Your task to perform on an android device: Search for desk lamps on article.com Image 0: 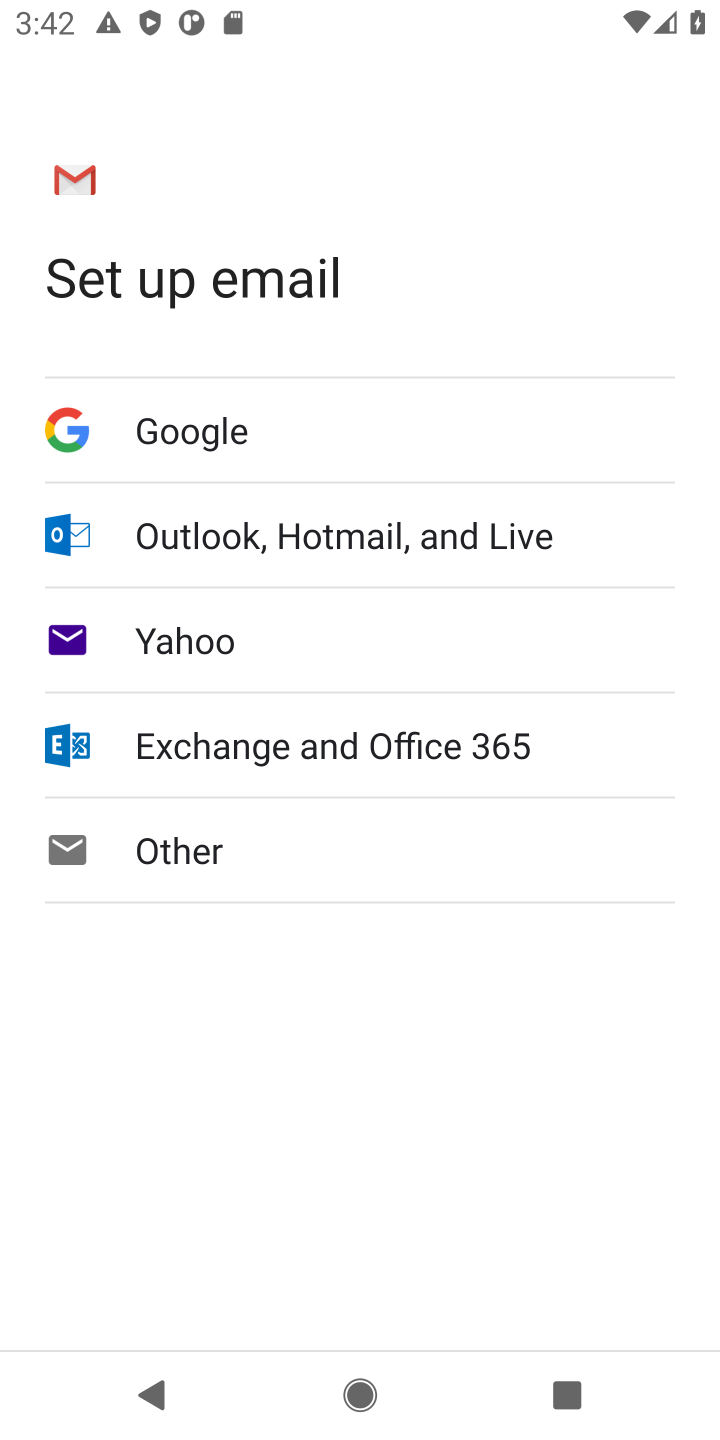
Step 0: press home button
Your task to perform on an android device: Search for desk lamps on article.com Image 1: 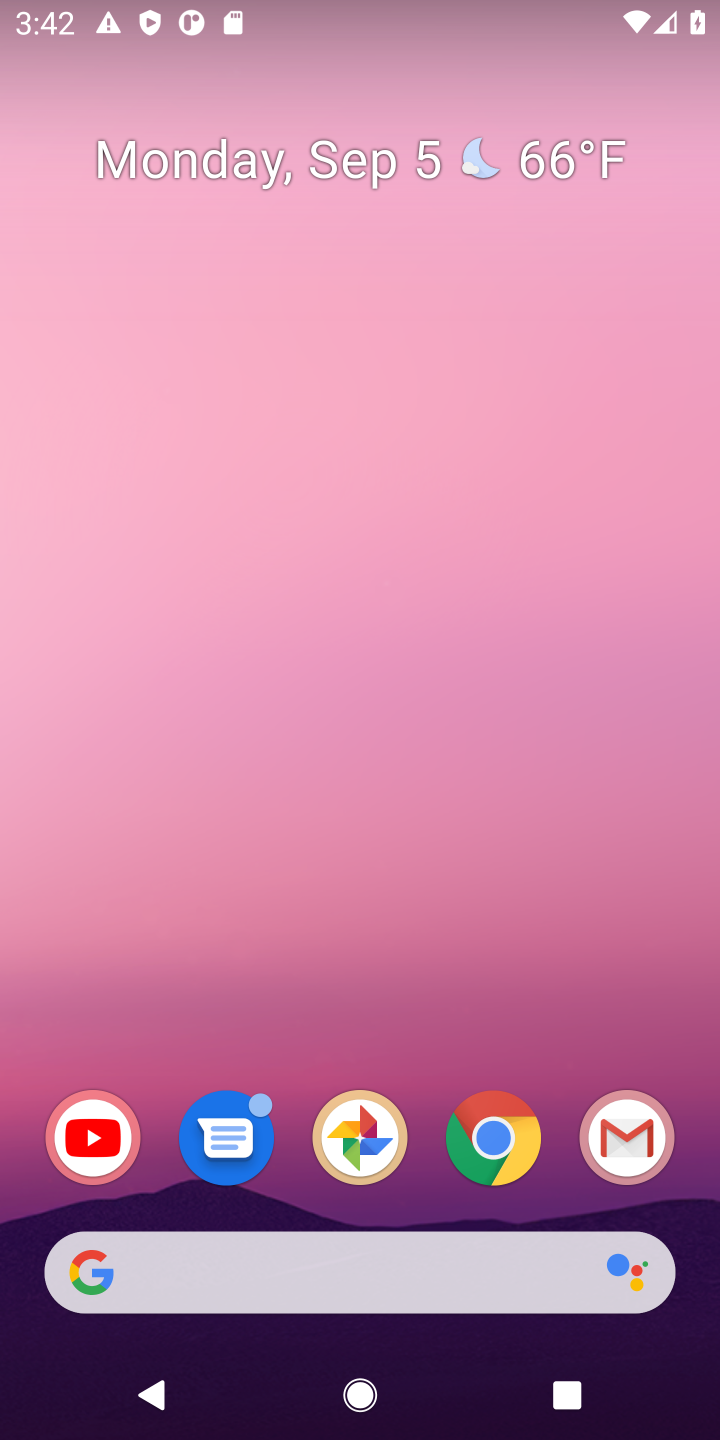
Step 1: click (484, 1153)
Your task to perform on an android device: Search for desk lamps on article.com Image 2: 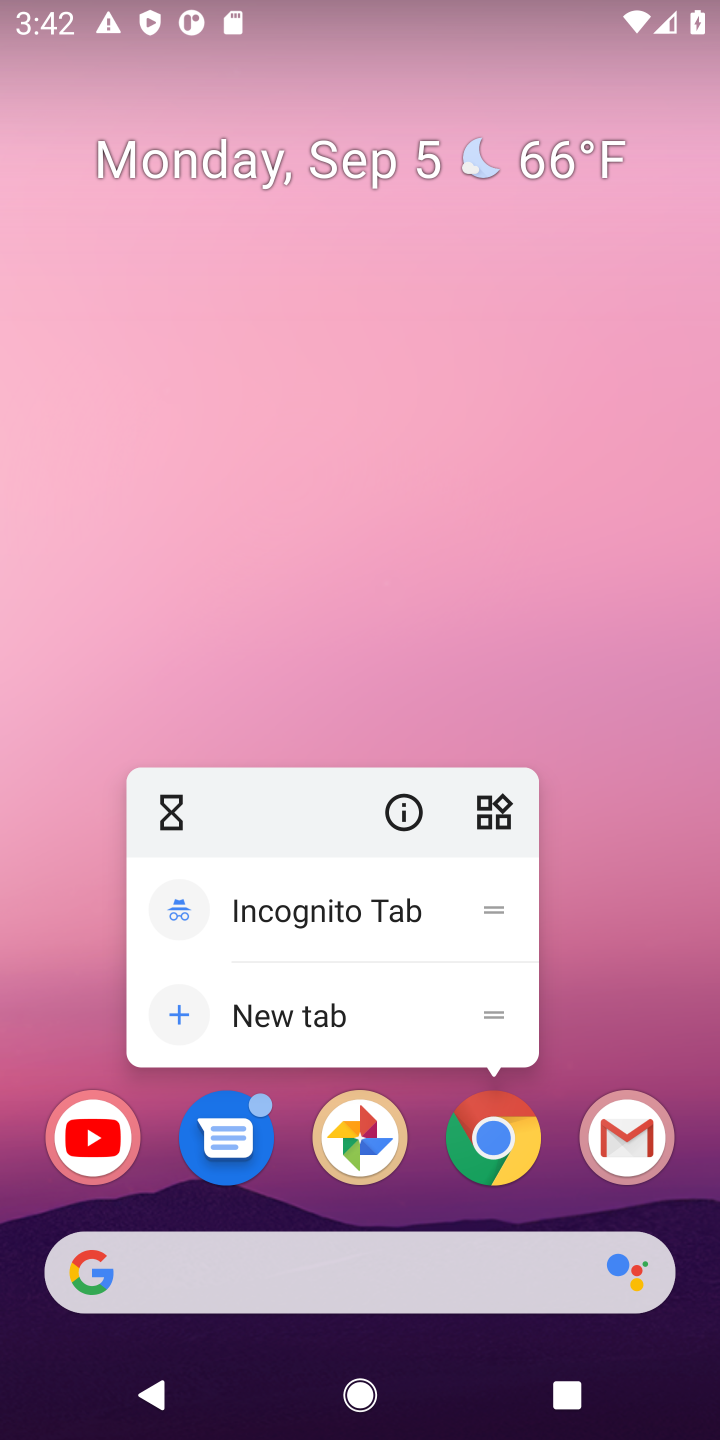
Step 2: click (526, 1141)
Your task to perform on an android device: Search for desk lamps on article.com Image 3: 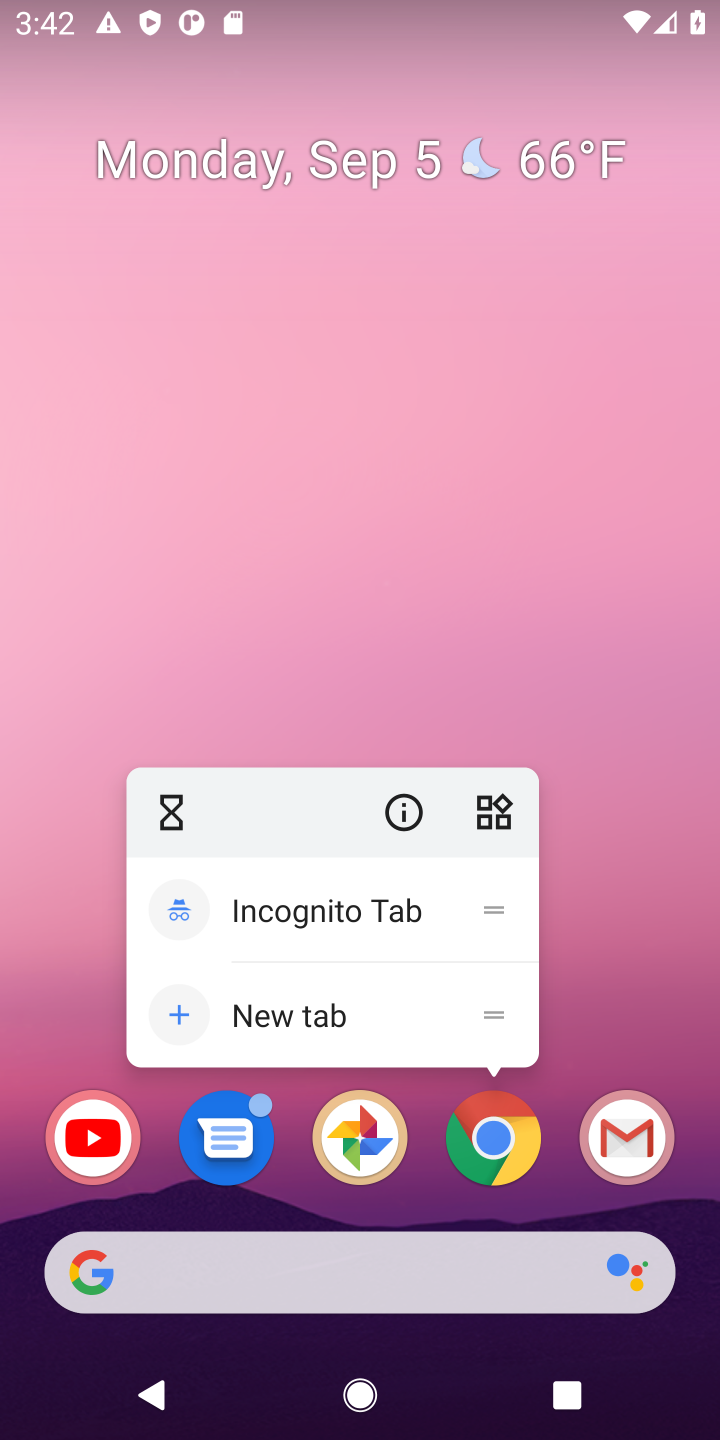
Step 3: click (526, 1141)
Your task to perform on an android device: Search for desk lamps on article.com Image 4: 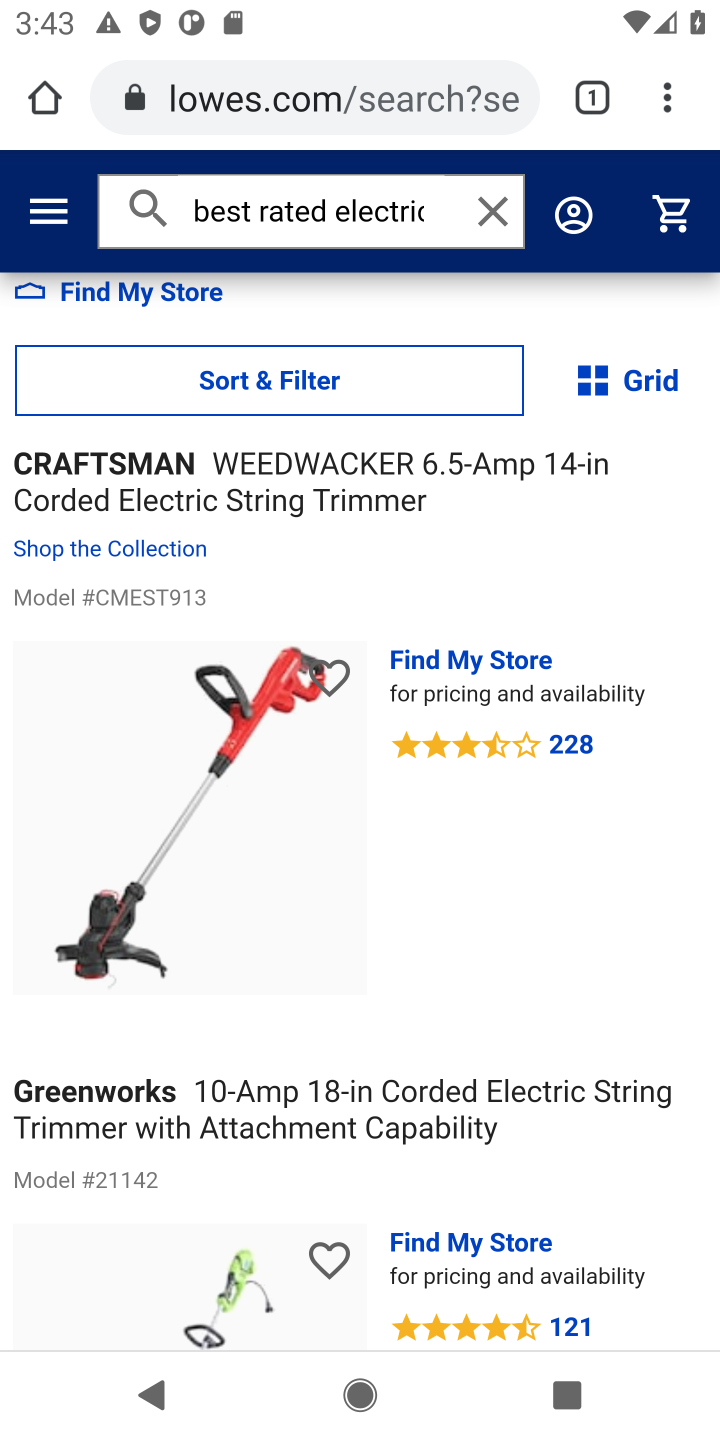
Step 4: click (366, 108)
Your task to perform on an android device: Search for desk lamps on article.com Image 5: 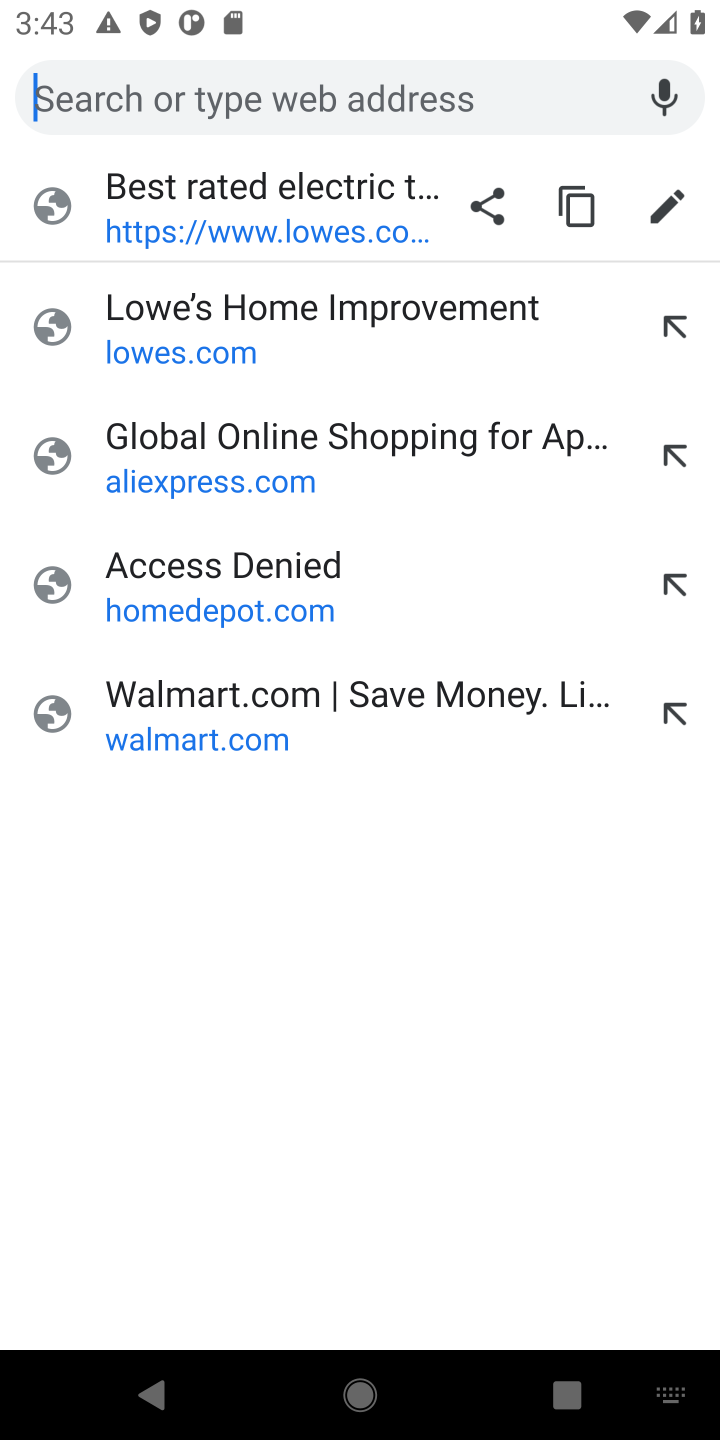
Step 5: type "article.com"
Your task to perform on an android device: Search for desk lamps on article.com Image 6: 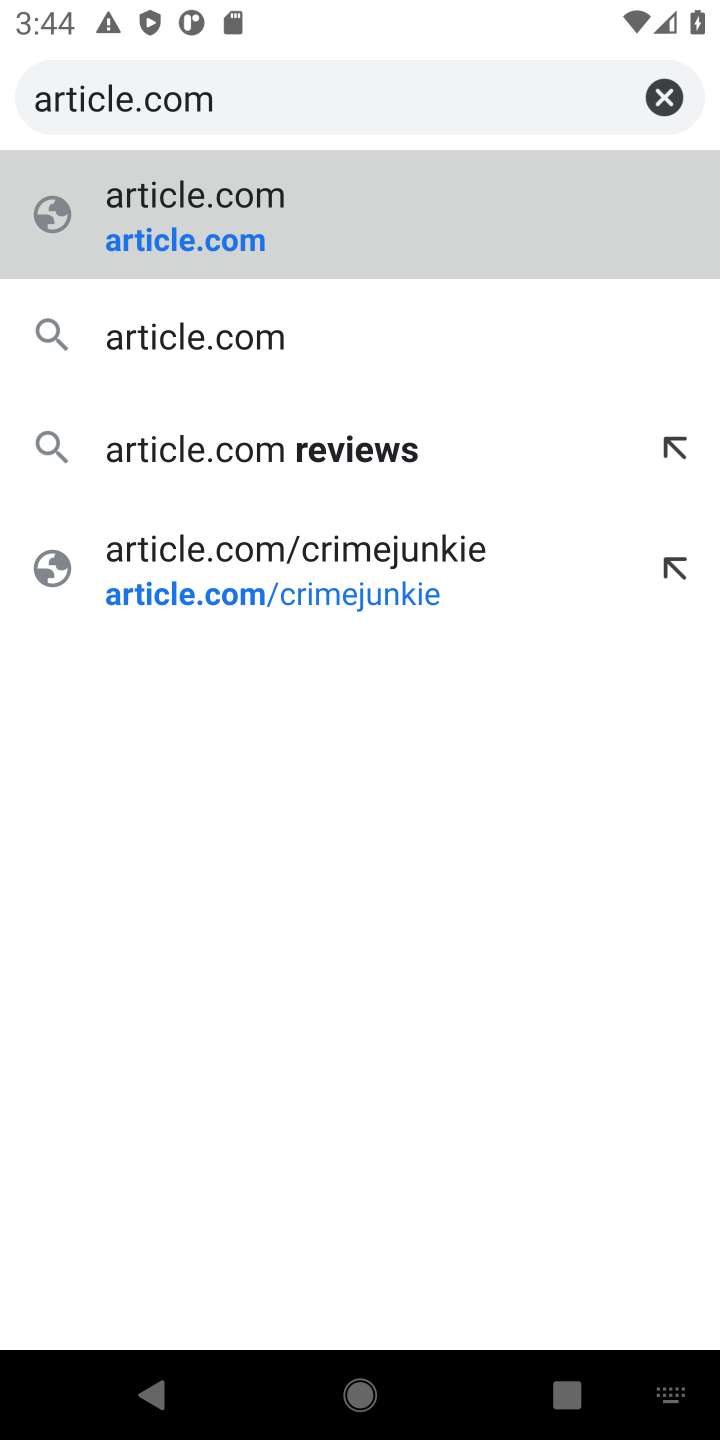
Step 6: click (281, 240)
Your task to perform on an android device: Search for desk lamps on article.com Image 7: 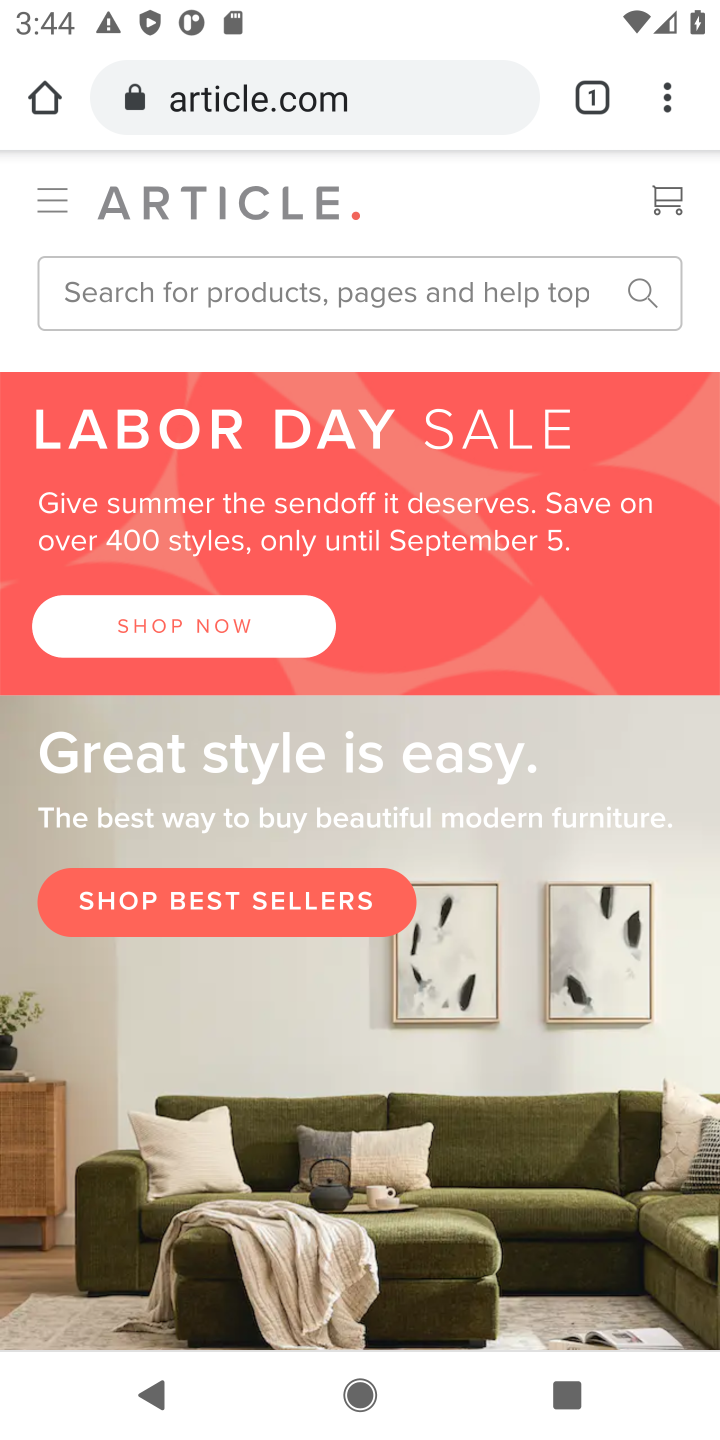
Step 7: click (361, 288)
Your task to perform on an android device: Search for desk lamps on article.com Image 8: 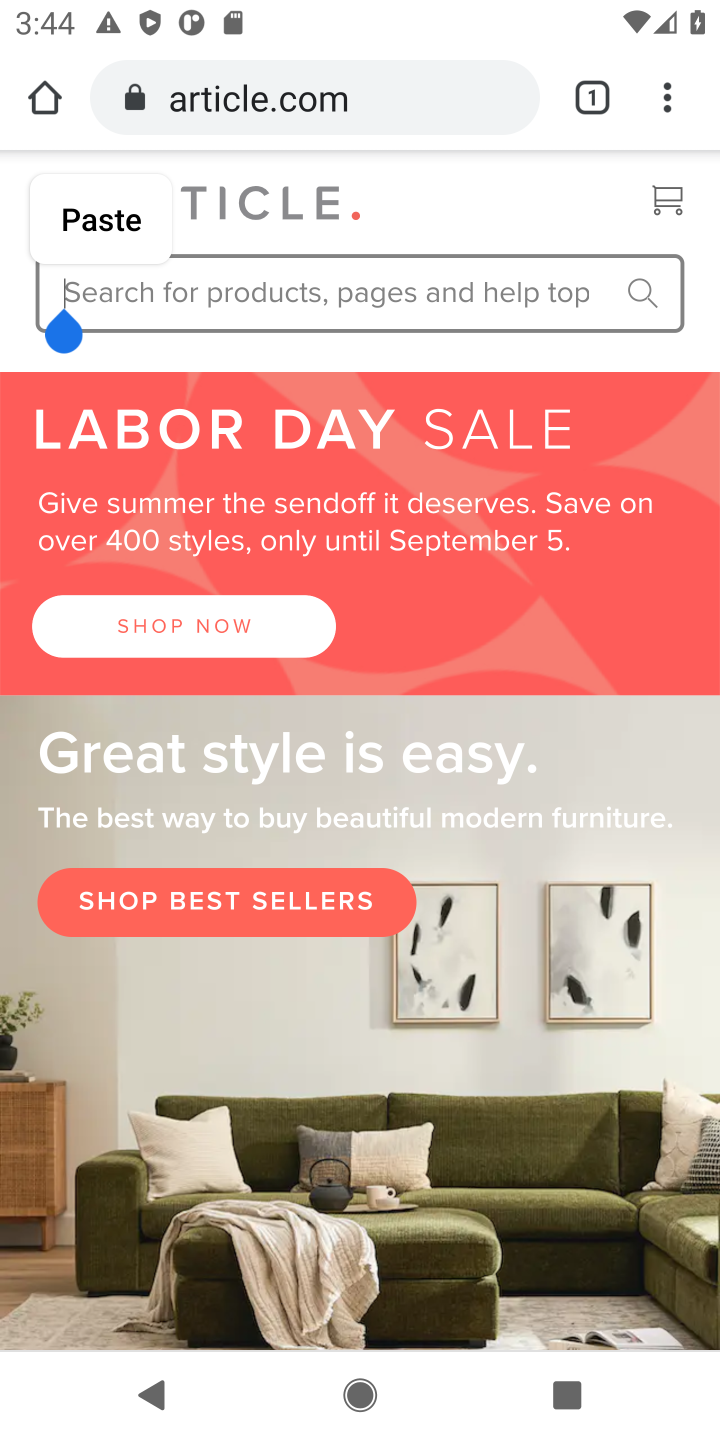
Step 8: type "desk lamps"
Your task to perform on an android device: Search for desk lamps on article.com Image 9: 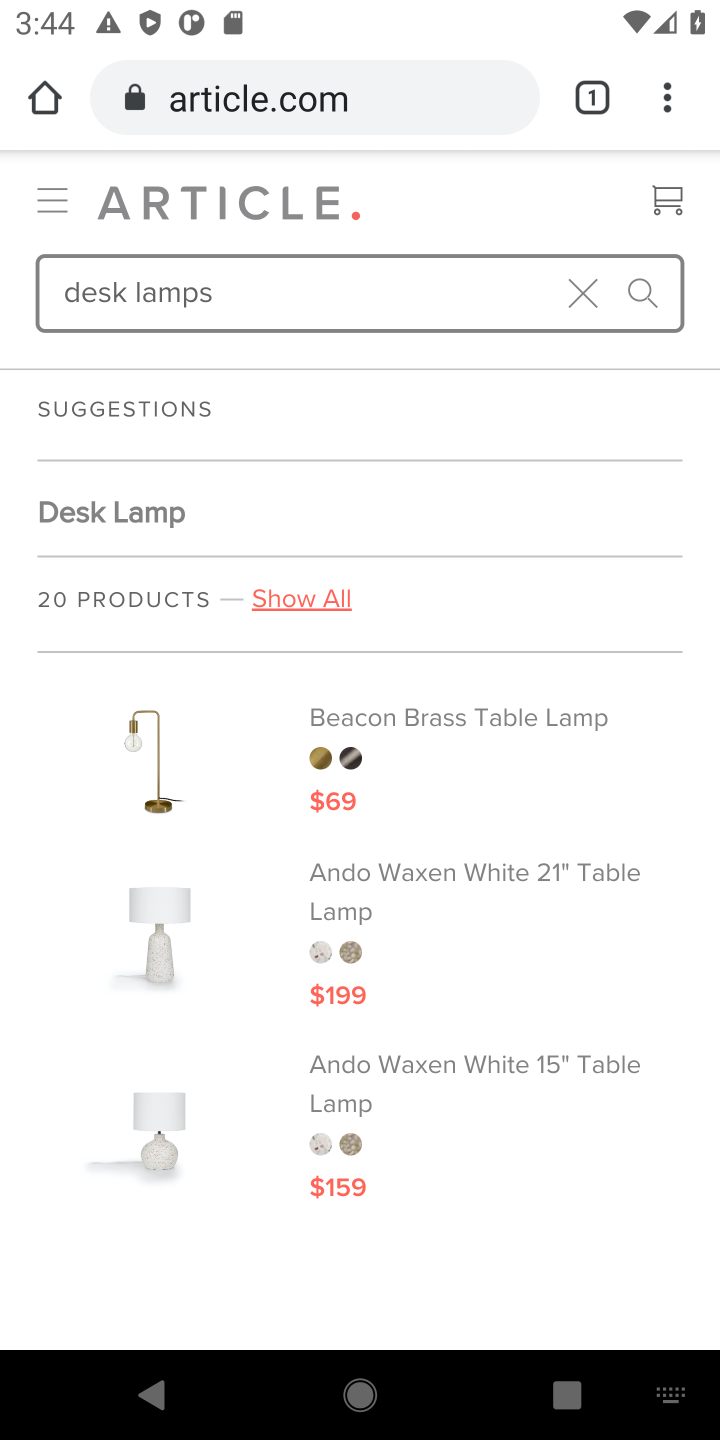
Step 9: click (658, 292)
Your task to perform on an android device: Search for desk lamps on article.com Image 10: 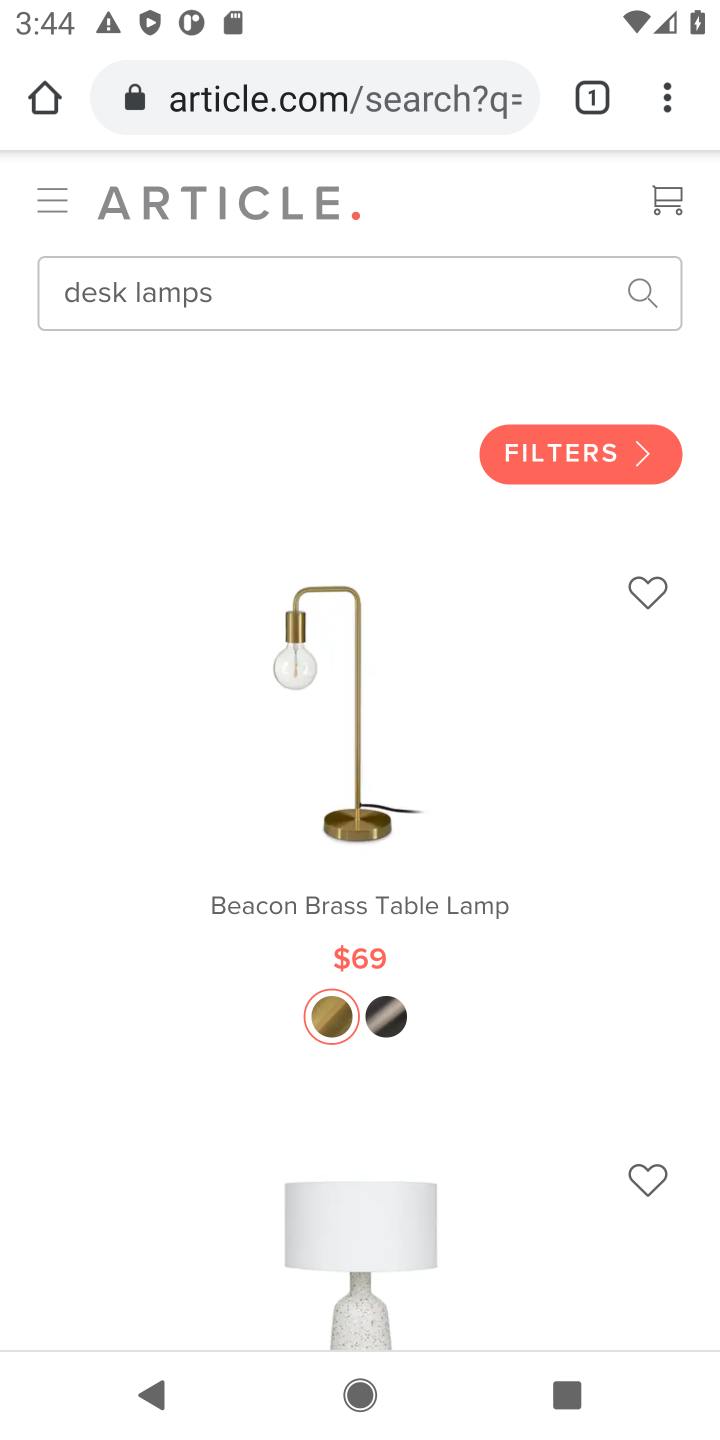
Step 10: task complete